Your task to perform on an android device: What's the weather going to be this weekend? Image 0: 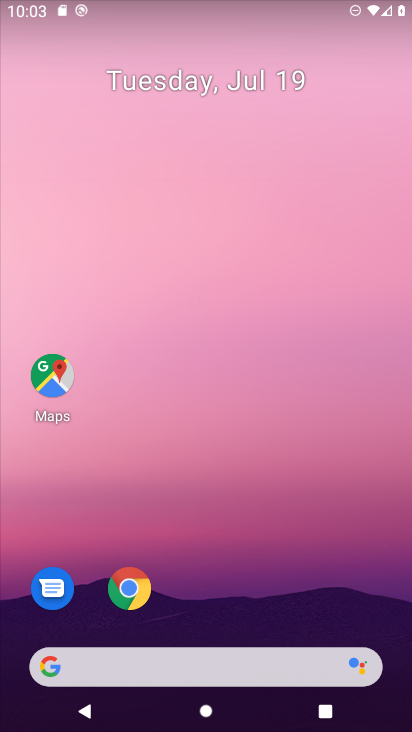
Step 0: drag from (174, 167) to (159, 59)
Your task to perform on an android device: What's the weather going to be this weekend? Image 1: 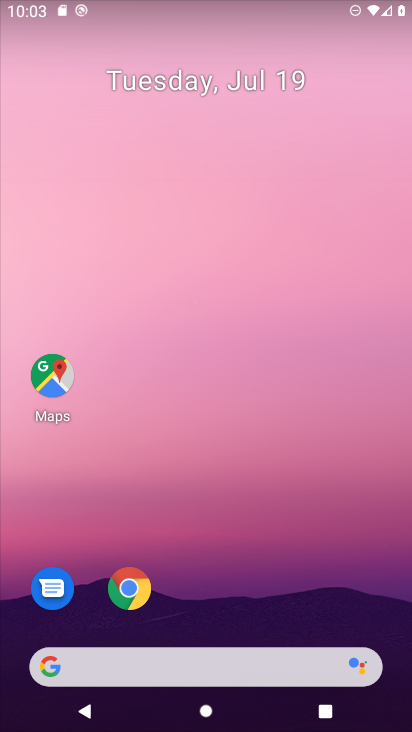
Step 1: click (251, 115)
Your task to perform on an android device: What's the weather going to be this weekend? Image 2: 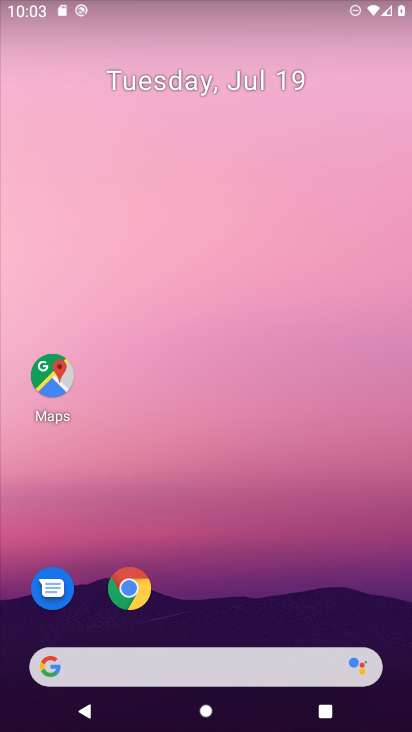
Step 2: drag from (281, 475) to (174, 151)
Your task to perform on an android device: What's the weather going to be this weekend? Image 3: 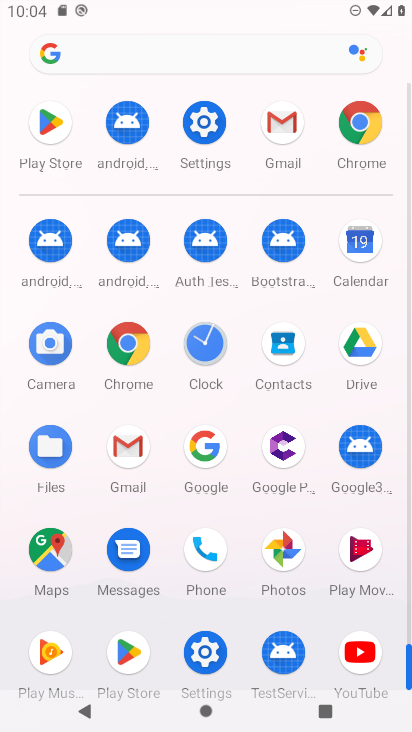
Step 3: press back button
Your task to perform on an android device: What's the weather going to be this weekend? Image 4: 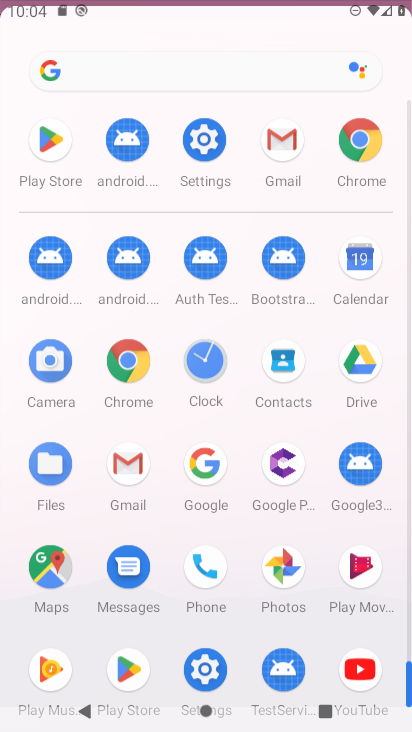
Step 4: press back button
Your task to perform on an android device: What's the weather going to be this weekend? Image 5: 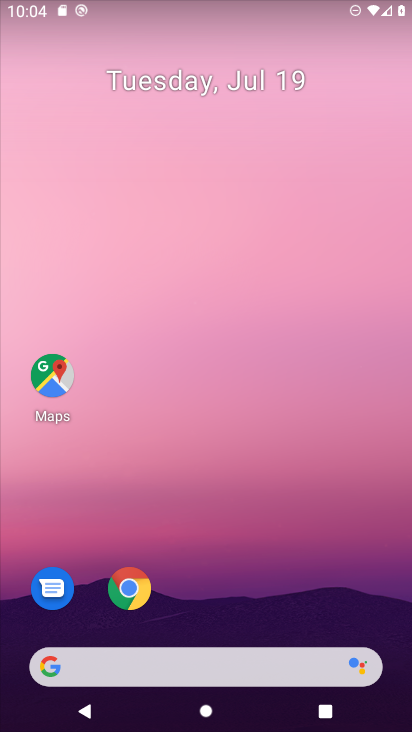
Step 5: press back button
Your task to perform on an android device: What's the weather going to be this weekend? Image 6: 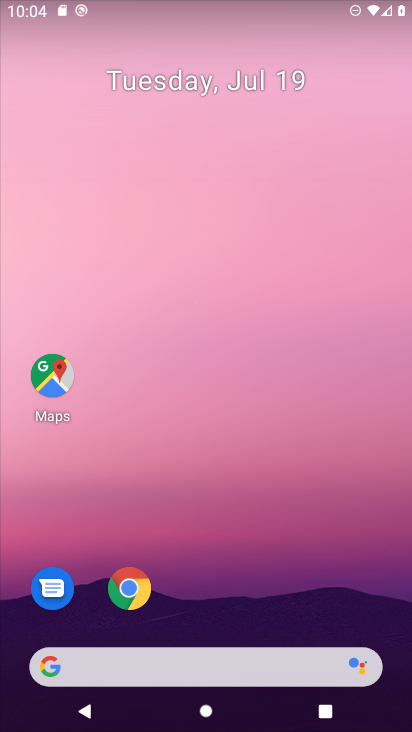
Step 6: drag from (47, 126) to (411, 393)
Your task to perform on an android device: What's the weather going to be this weekend? Image 7: 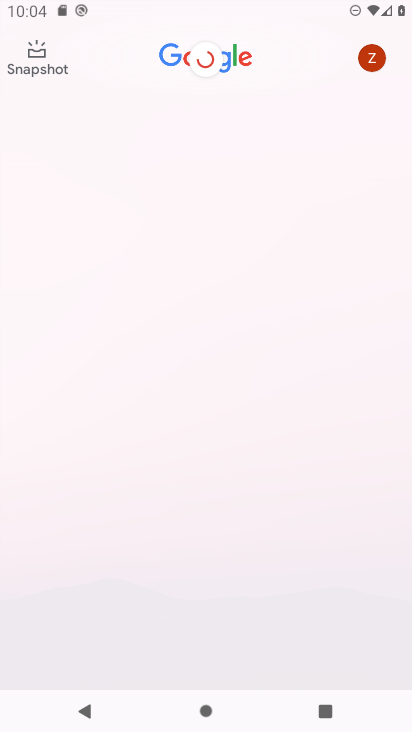
Step 7: drag from (145, 158) to (150, 459)
Your task to perform on an android device: What's the weather going to be this weekend? Image 8: 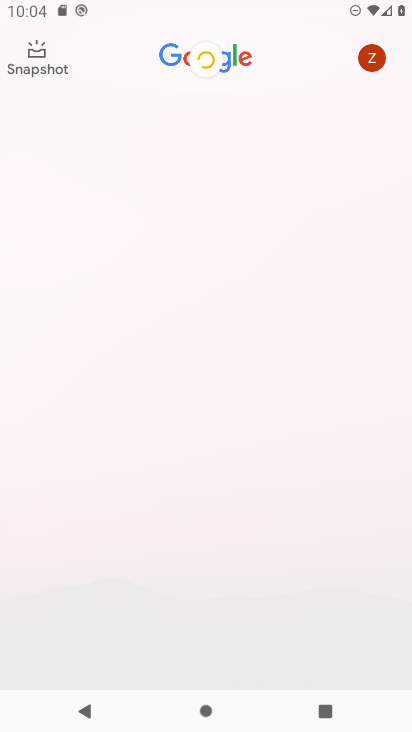
Step 8: drag from (190, 133) to (190, 424)
Your task to perform on an android device: What's the weather going to be this weekend? Image 9: 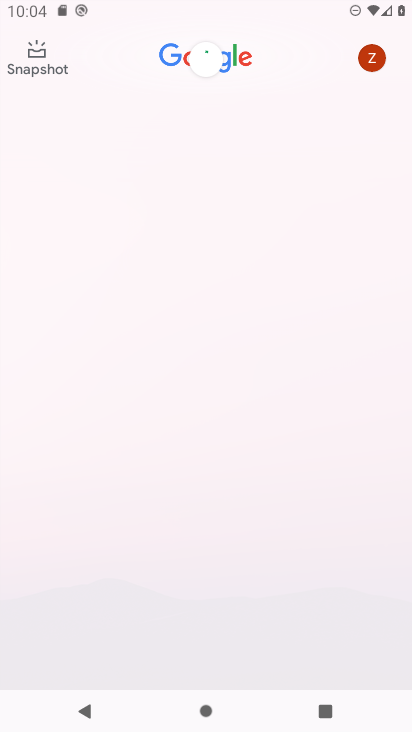
Step 9: drag from (245, 119) to (206, 459)
Your task to perform on an android device: What's the weather going to be this weekend? Image 10: 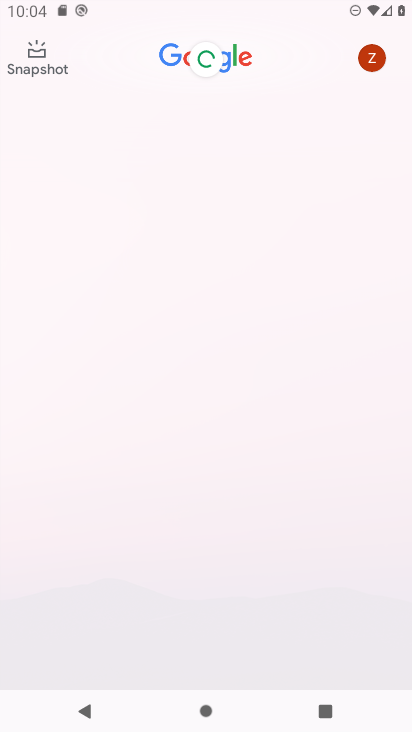
Step 10: drag from (153, 177) to (163, 363)
Your task to perform on an android device: What's the weather going to be this weekend? Image 11: 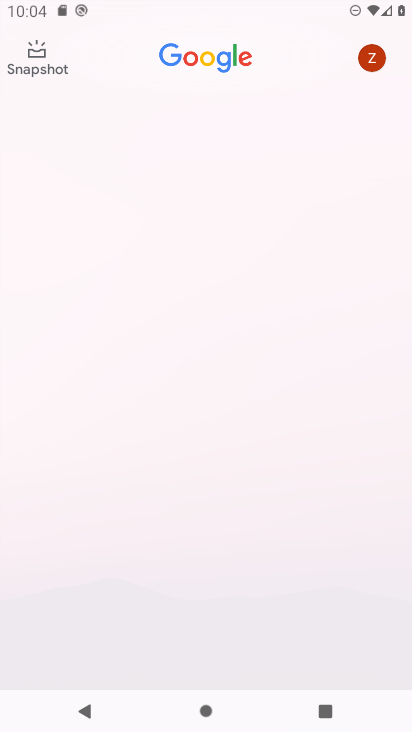
Step 11: drag from (189, 264) to (196, 458)
Your task to perform on an android device: What's the weather going to be this weekend? Image 12: 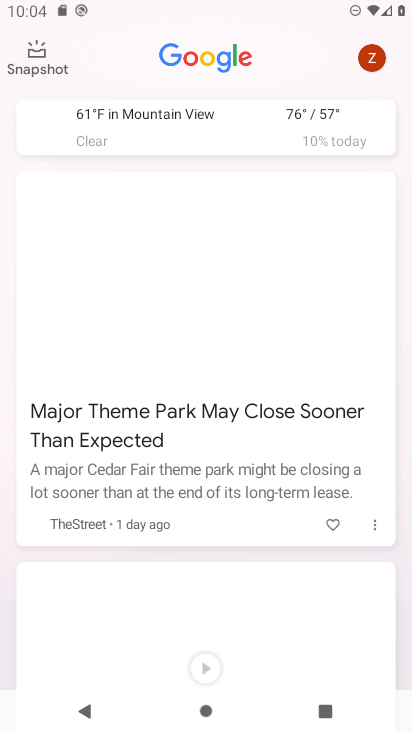
Step 12: drag from (133, 147) to (191, 413)
Your task to perform on an android device: What's the weather going to be this weekend? Image 13: 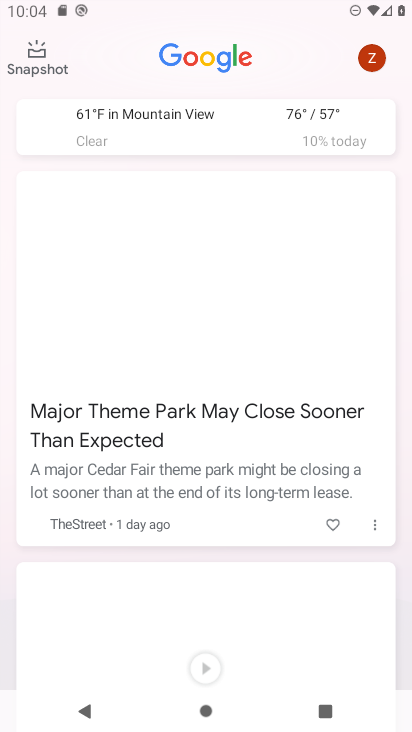
Step 13: drag from (230, 78) to (205, 465)
Your task to perform on an android device: What's the weather going to be this weekend? Image 14: 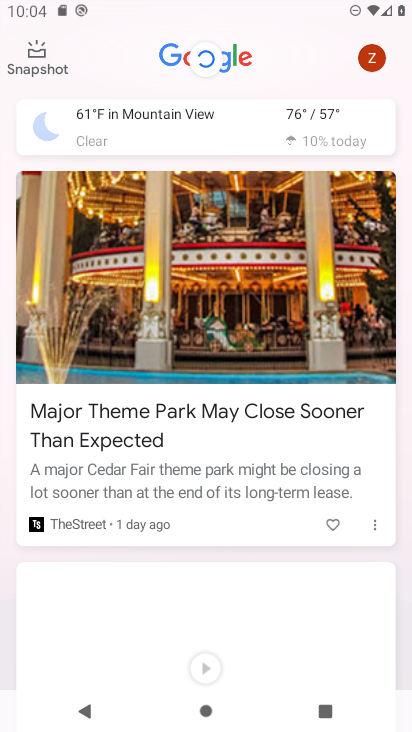
Step 14: click (176, 119)
Your task to perform on an android device: What's the weather going to be this weekend? Image 15: 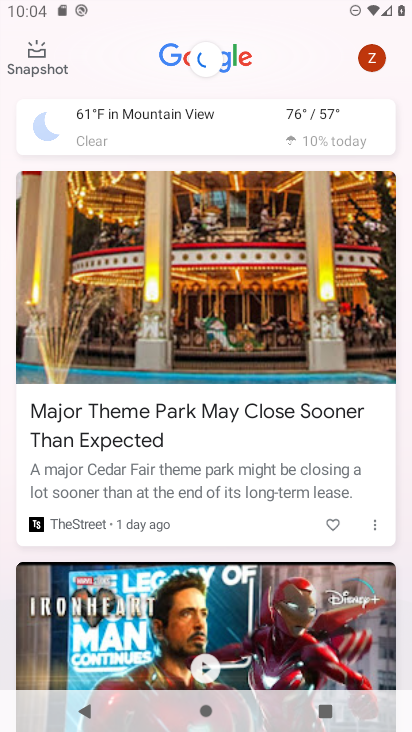
Step 15: click (189, 121)
Your task to perform on an android device: What's the weather going to be this weekend? Image 16: 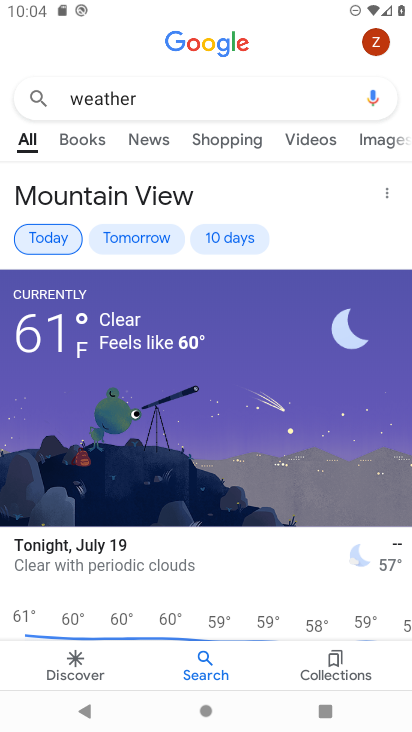
Step 16: task complete